Your task to perform on an android device: check battery use Image 0: 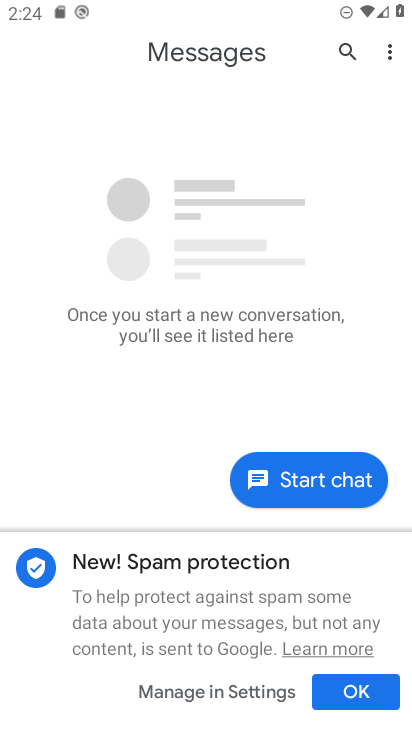
Step 0: press home button
Your task to perform on an android device: check battery use Image 1: 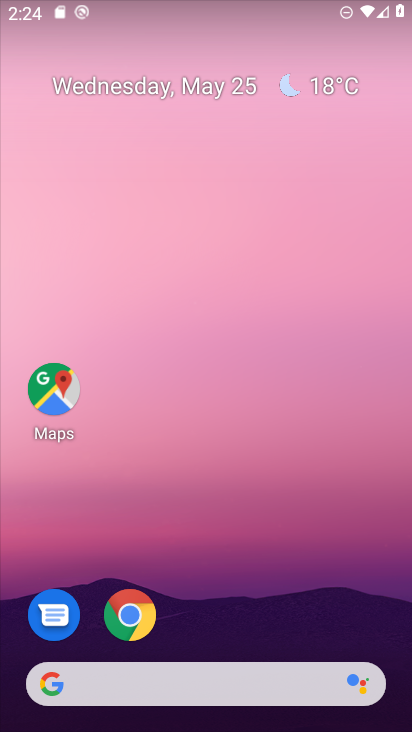
Step 1: drag from (235, 520) to (270, 41)
Your task to perform on an android device: check battery use Image 2: 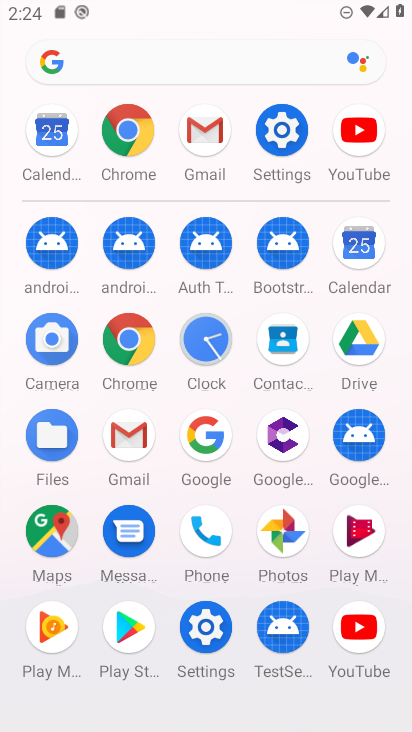
Step 2: click (282, 135)
Your task to perform on an android device: check battery use Image 3: 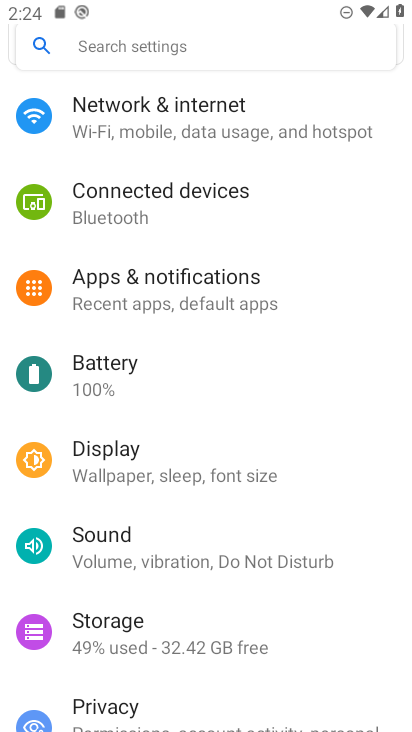
Step 3: click (167, 374)
Your task to perform on an android device: check battery use Image 4: 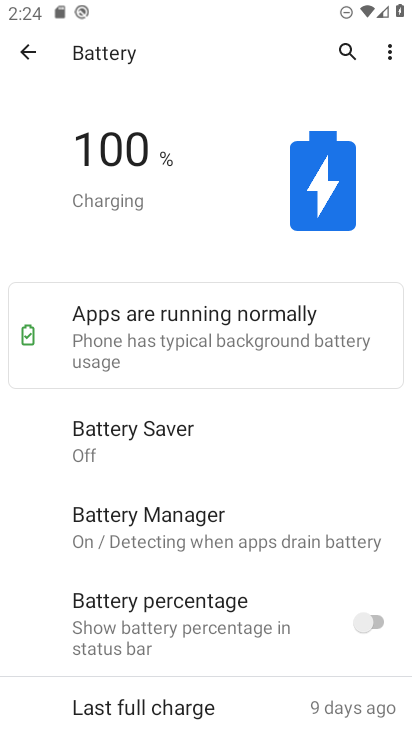
Step 4: click (389, 49)
Your task to perform on an android device: check battery use Image 5: 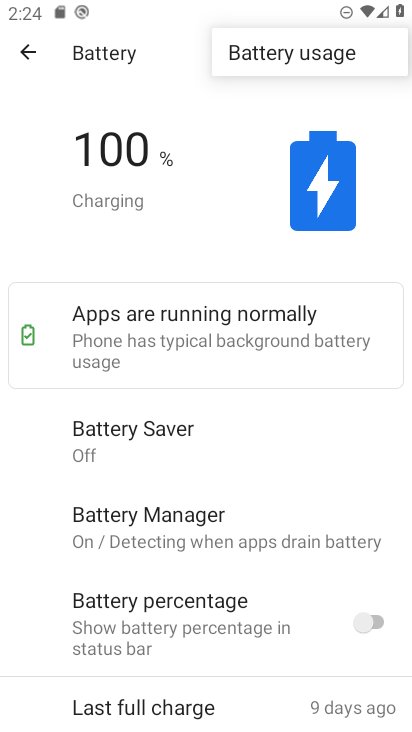
Step 5: click (342, 46)
Your task to perform on an android device: check battery use Image 6: 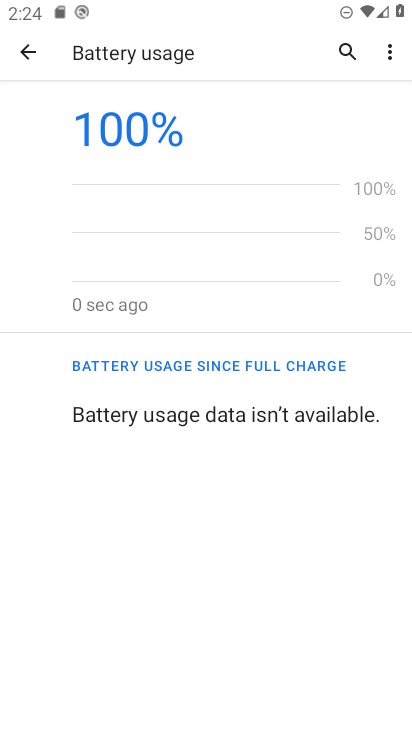
Step 6: task complete